Your task to perform on an android device: Go to Amazon Image 0: 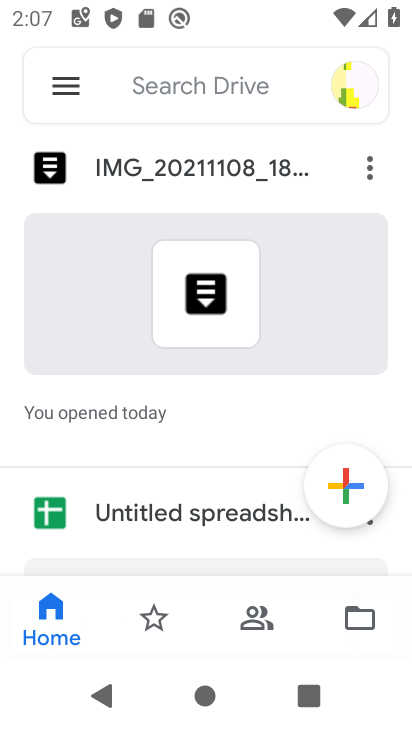
Step 0: press home button
Your task to perform on an android device: Go to Amazon Image 1: 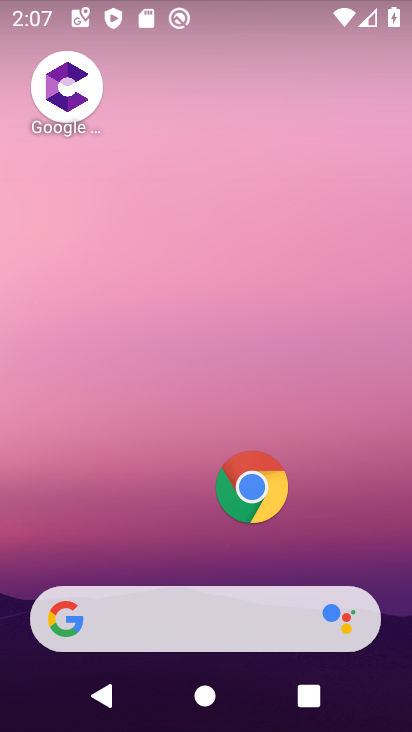
Step 1: click (237, 498)
Your task to perform on an android device: Go to Amazon Image 2: 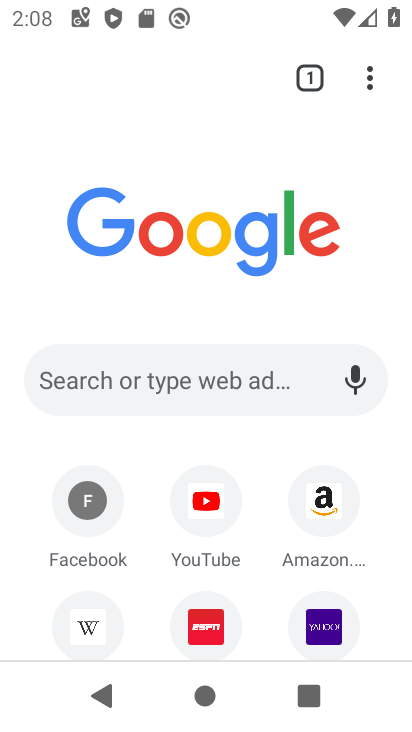
Step 2: click (316, 498)
Your task to perform on an android device: Go to Amazon Image 3: 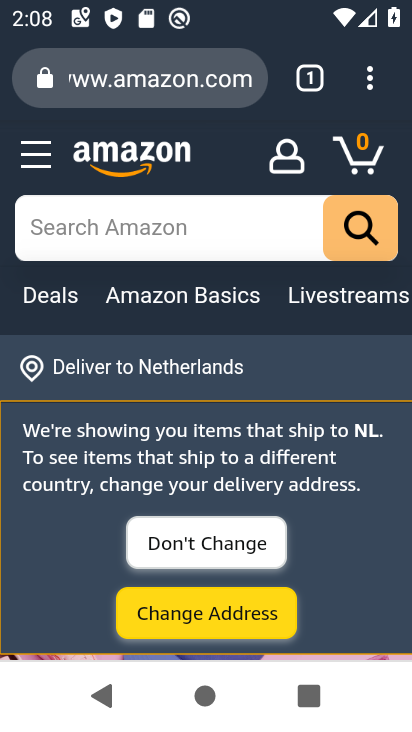
Step 3: task complete